Your task to perform on an android device: Search for "razer nari" on bestbuy, select the first entry, and add it to the cart. Image 0: 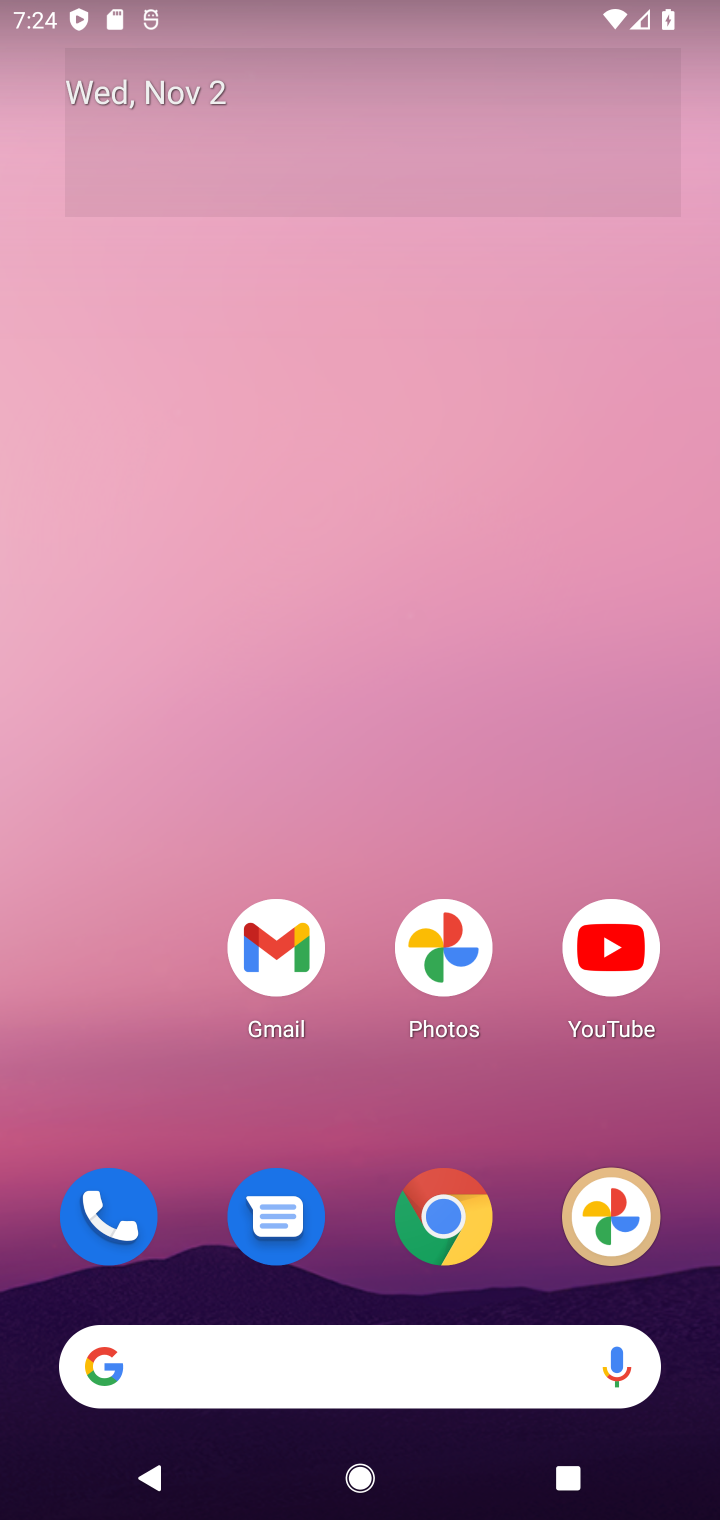
Step 0: click (452, 1213)
Your task to perform on an android device: Search for "razer nari" on bestbuy, select the first entry, and add it to the cart. Image 1: 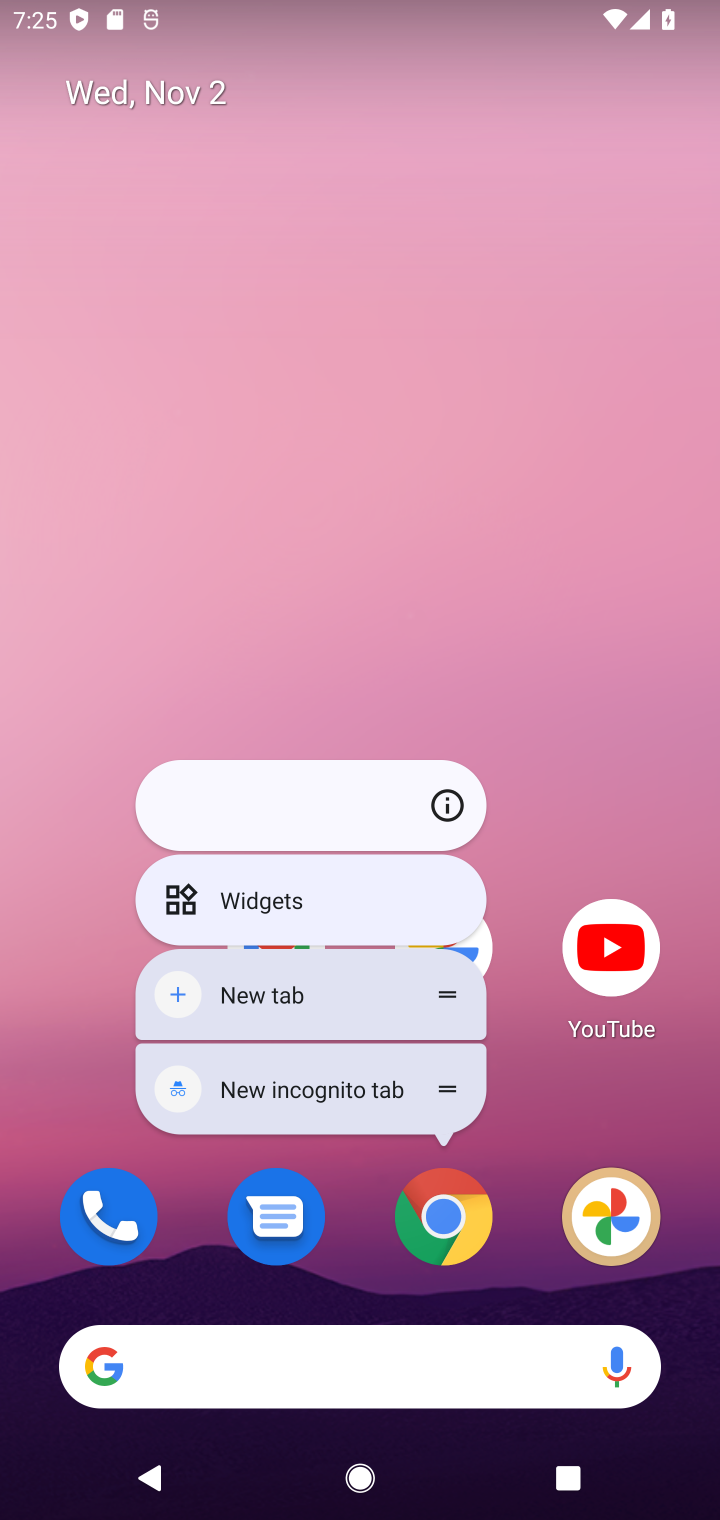
Step 1: click (474, 1269)
Your task to perform on an android device: Search for "razer nari" on bestbuy, select the first entry, and add it to the cart. Image 2: 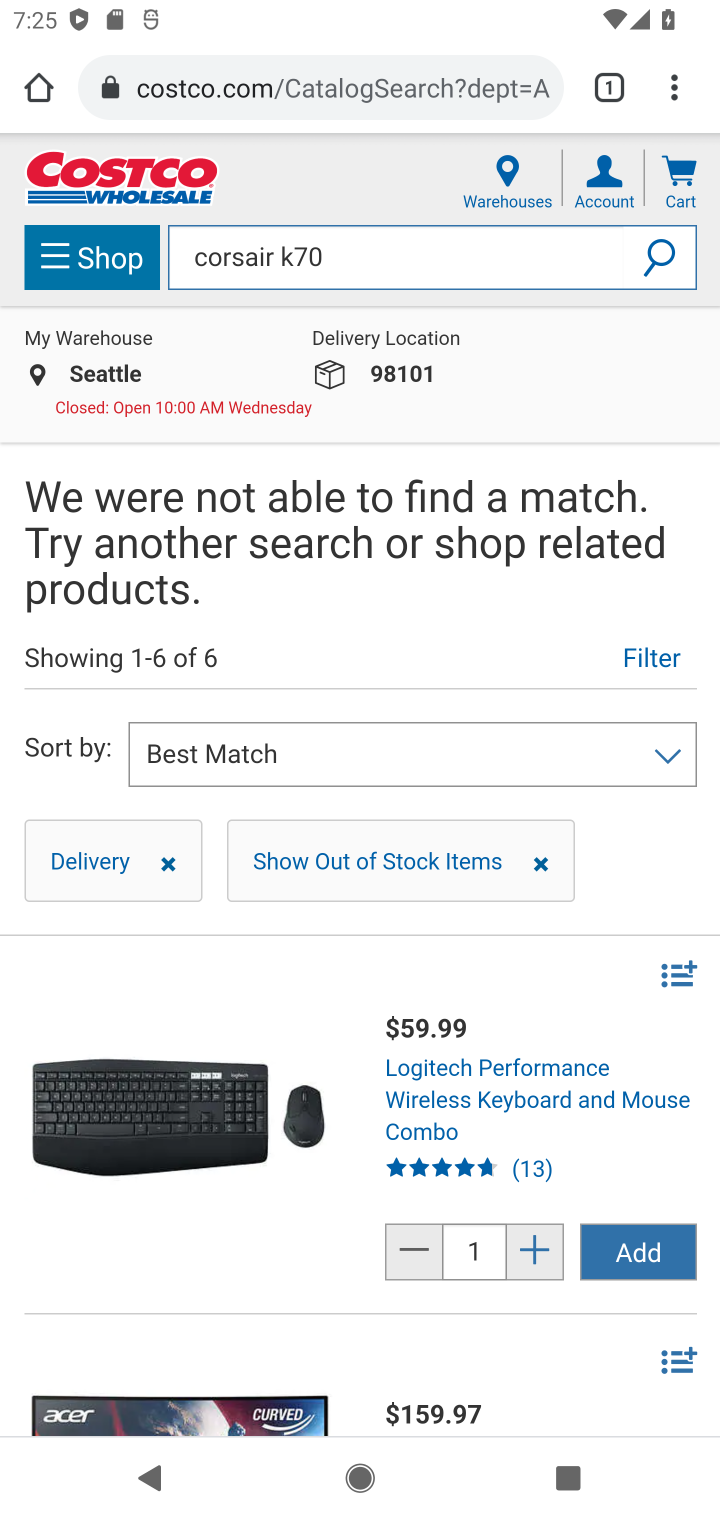
Step 2: click (337, 86)
Your task to perform on an android device: Search for "razer nari" on bestbuy, select the first entry, and add it to the cart. Image 3: 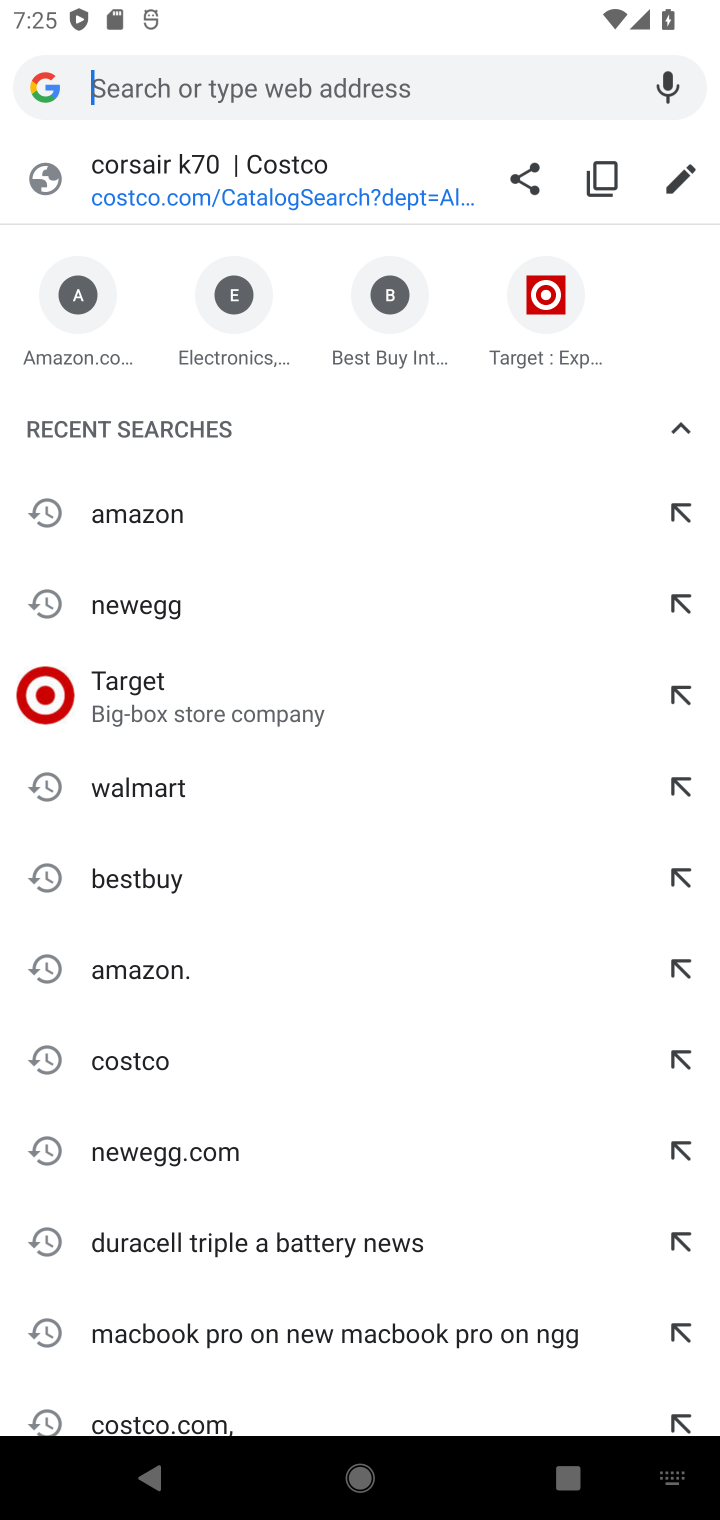
Step 3: type "bestbuy"
Your task to perform on an android device: Search for "razer nari" on bestbuy, select the first entry, and add it to the cart. Image 4: 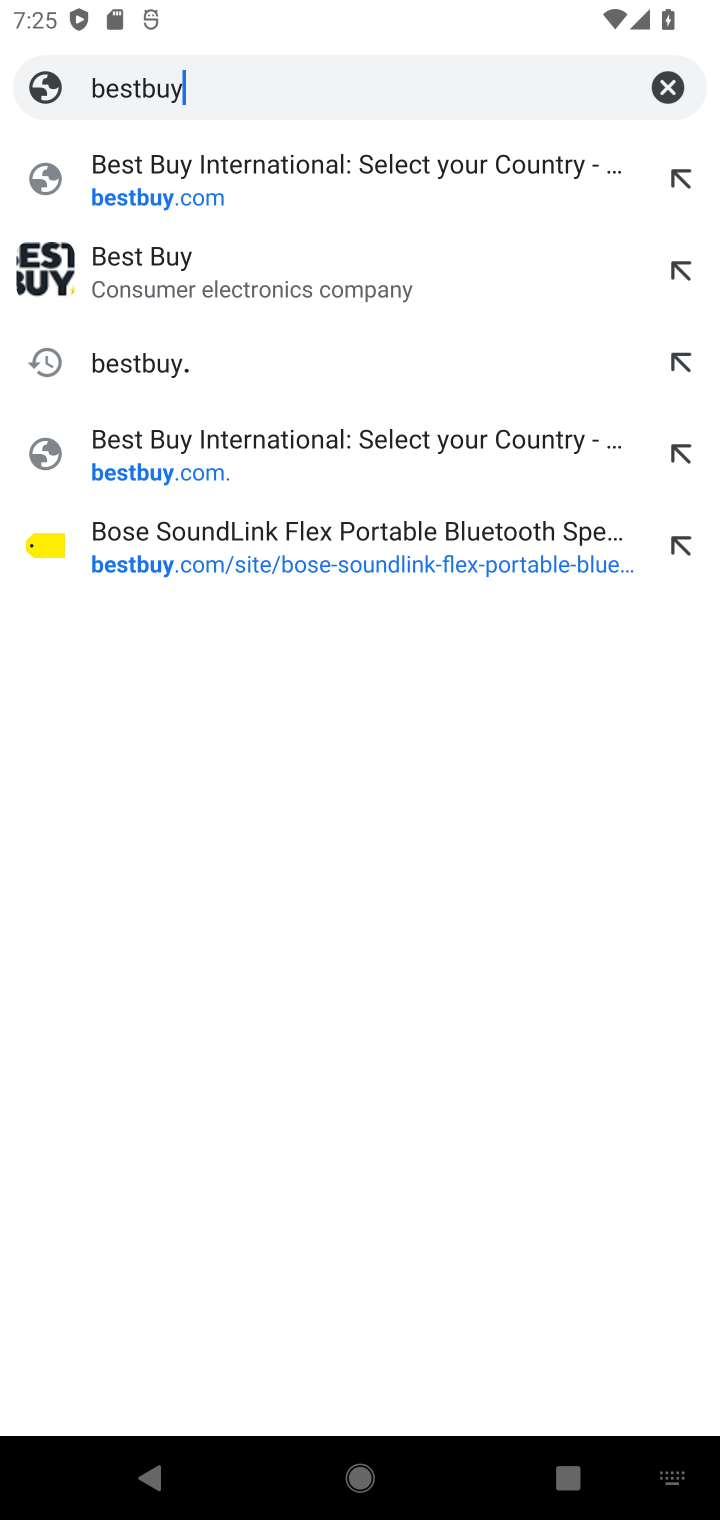
Step 4: click (178, 186)
Your task to perform on an android device: Search for "razer nari" on bestbuy, select the first entry, and add it to the cart. Image 5: 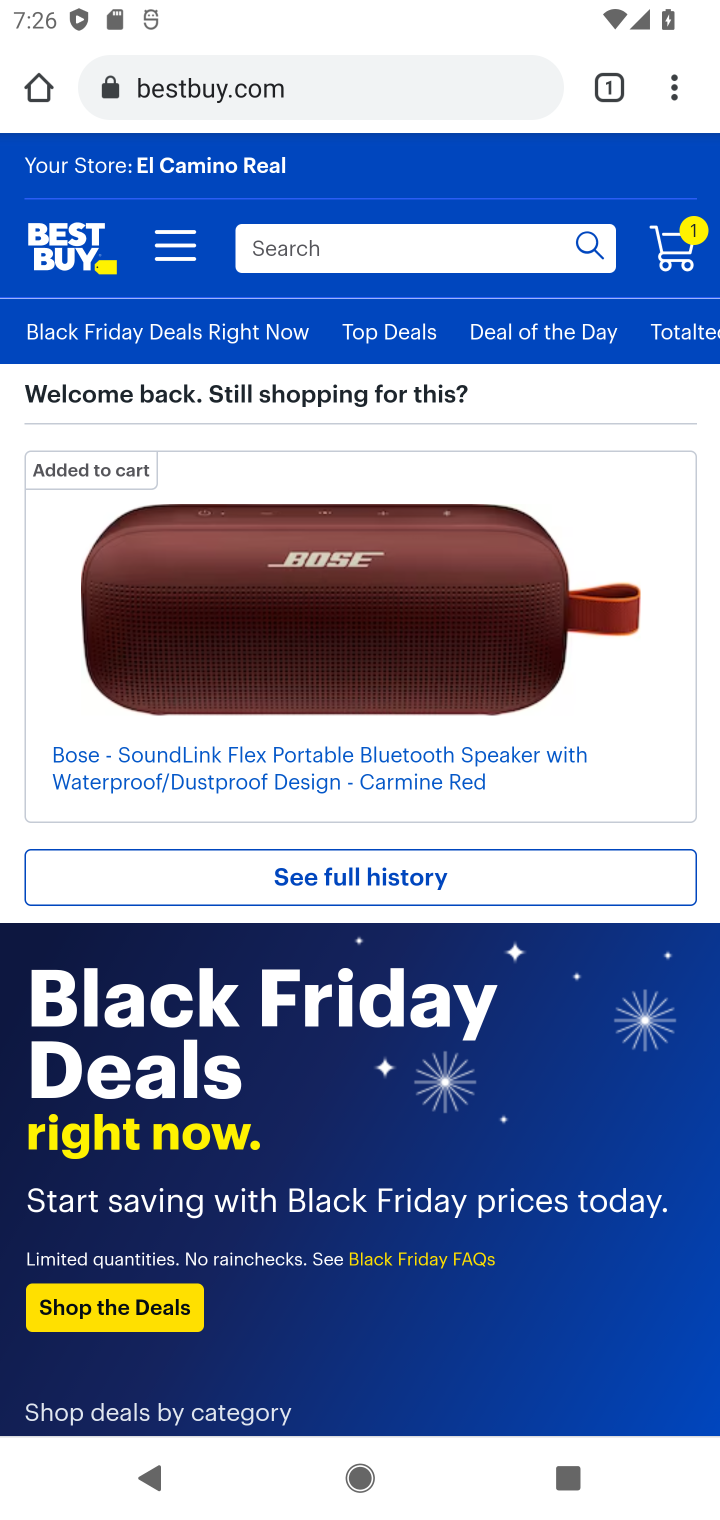
Step 5: click (391, 229)
Your task to perform on an android device: Search for "razer nari" on bestbuy, select the first entry, and add it to the cart. Image 6: 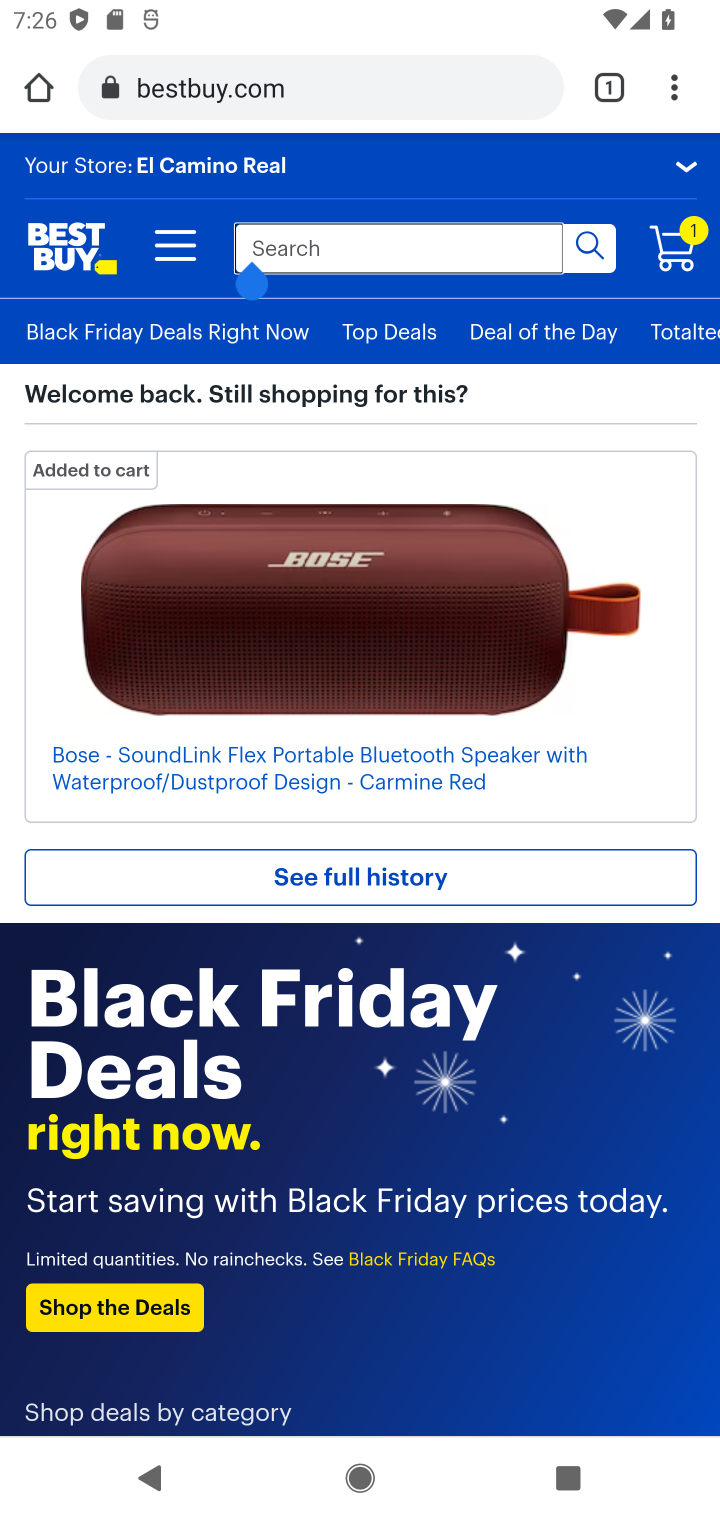
Step 6: type "razer nari"
Your task to perform on an android device: Search for "razer nari" on bestbuy, select the first entry, and add it to the cart. Image 7: 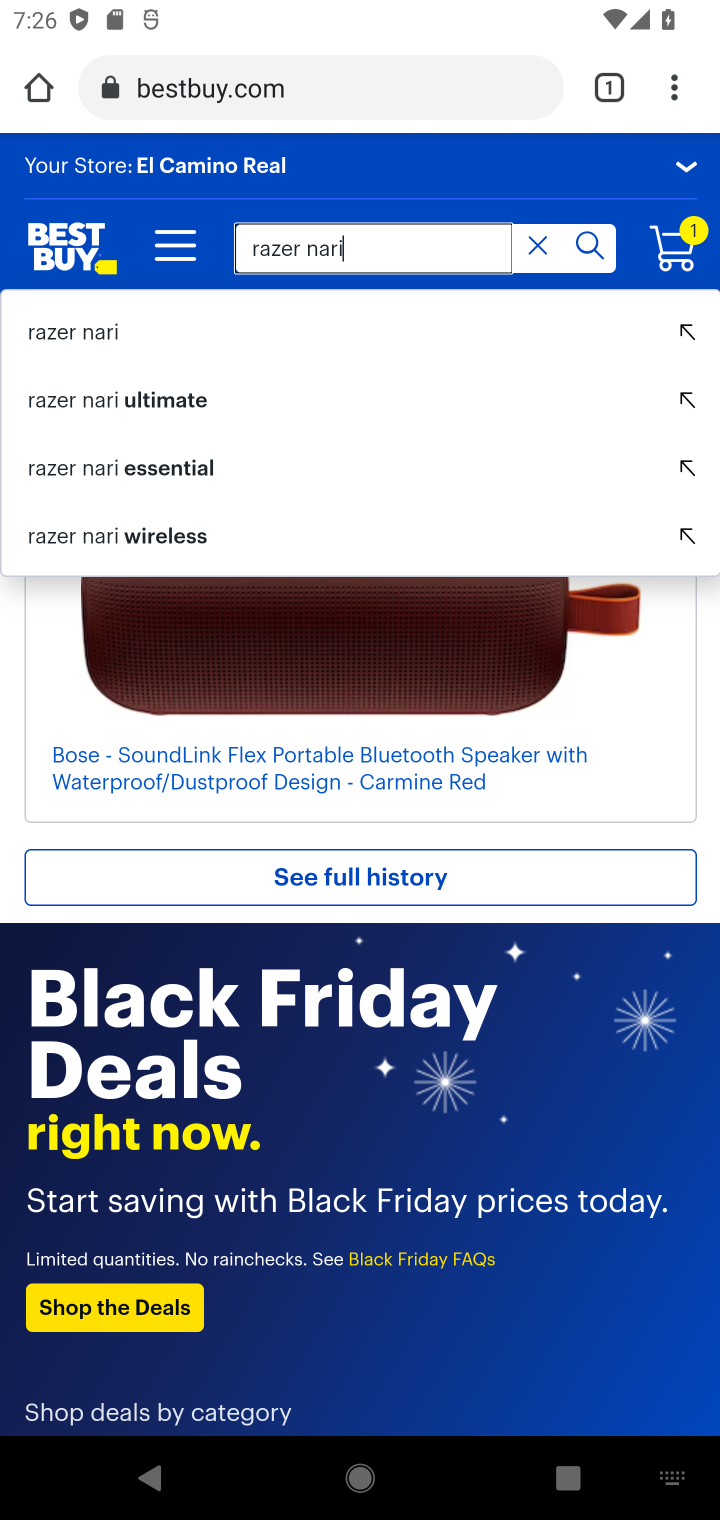
Step 7: click (183, 330)
Your task to perform on an android device: Search for "razer nari" on bestbuy, select the first entry, and add it to the cart. Image 8: 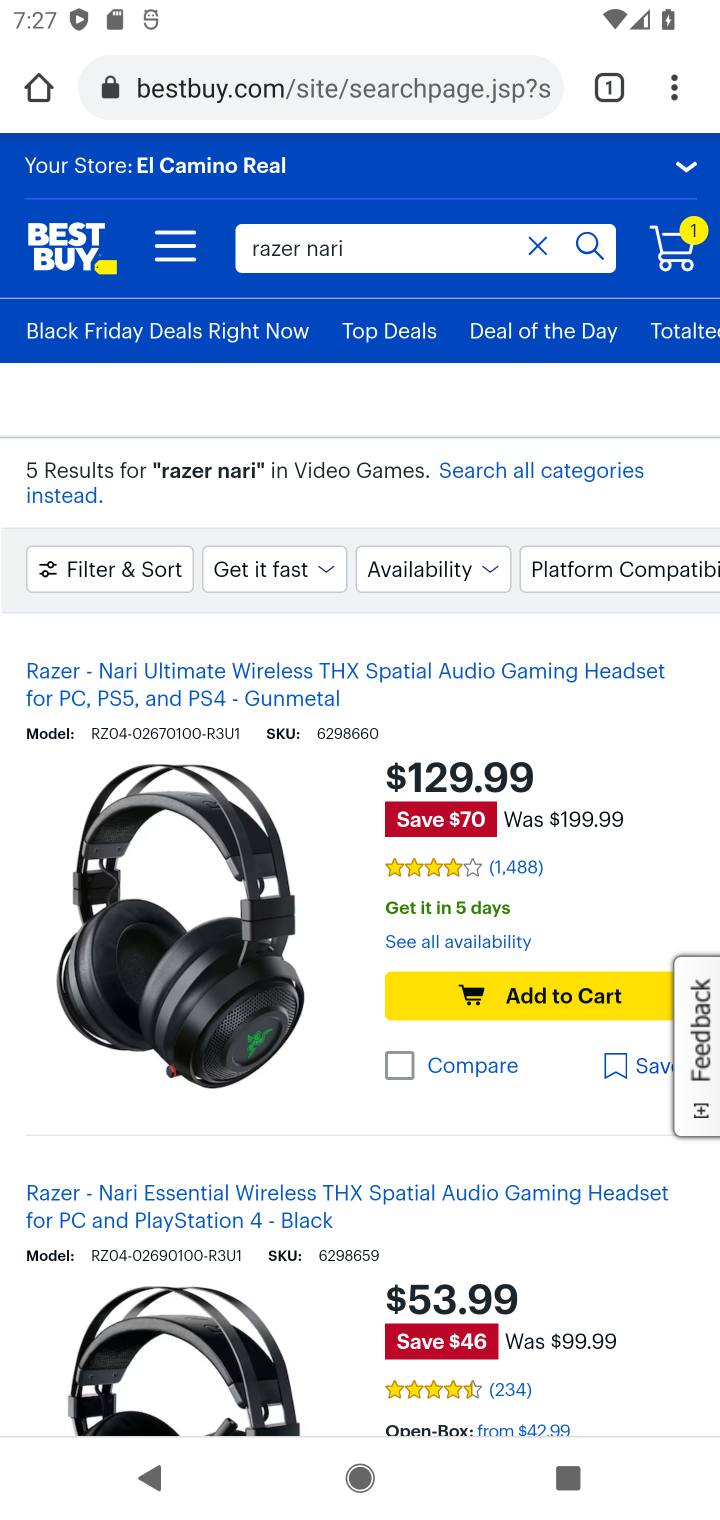
Step 8: click (215, 933)
Your task to perform on an android device: Search for "razer nari" on bestbuy, select the first entry, and add it to the cart. Image 9: 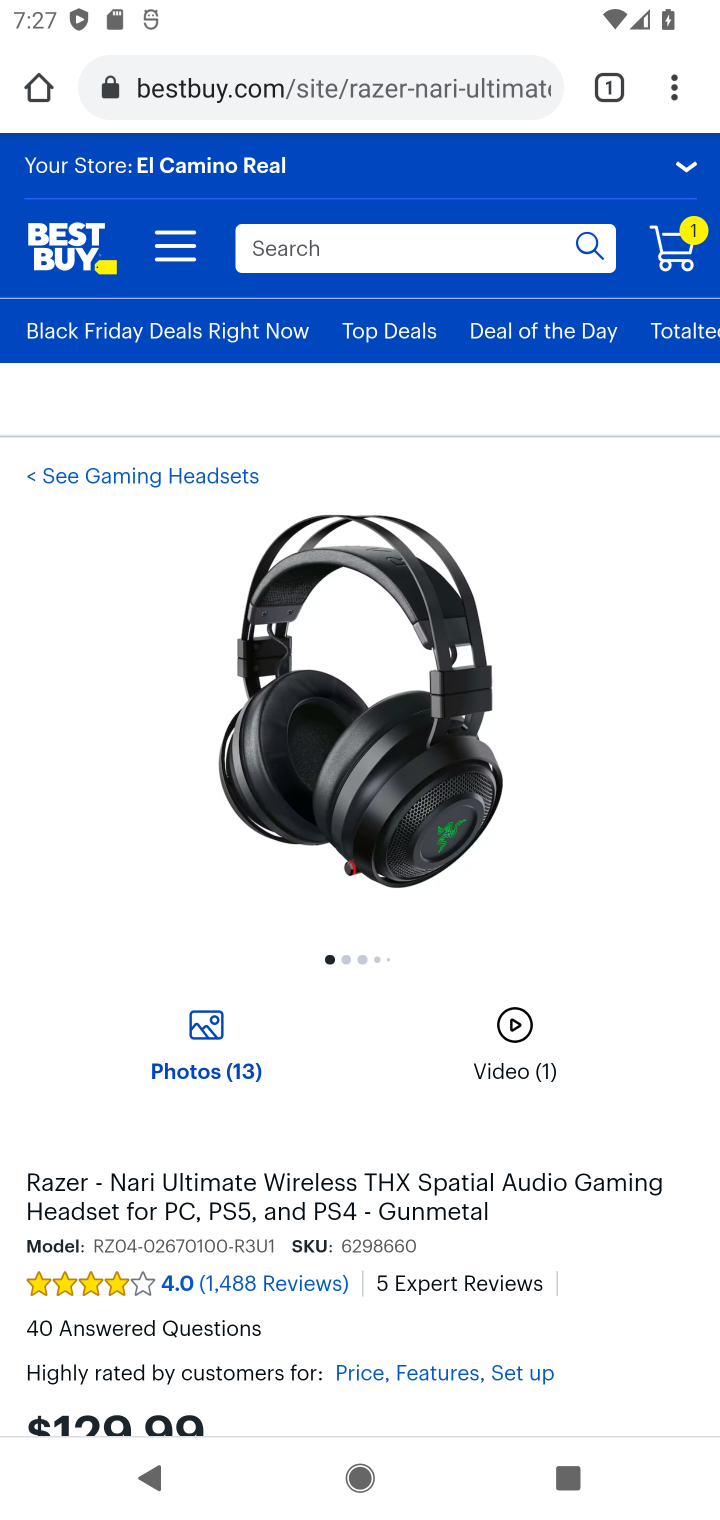
Step 9: drag from (506, 1281) to (448, 466)
Your task to perform on an android device: Search for "razer nari" on bestbuy, select the first entry, and add it to the cart. Image 10: 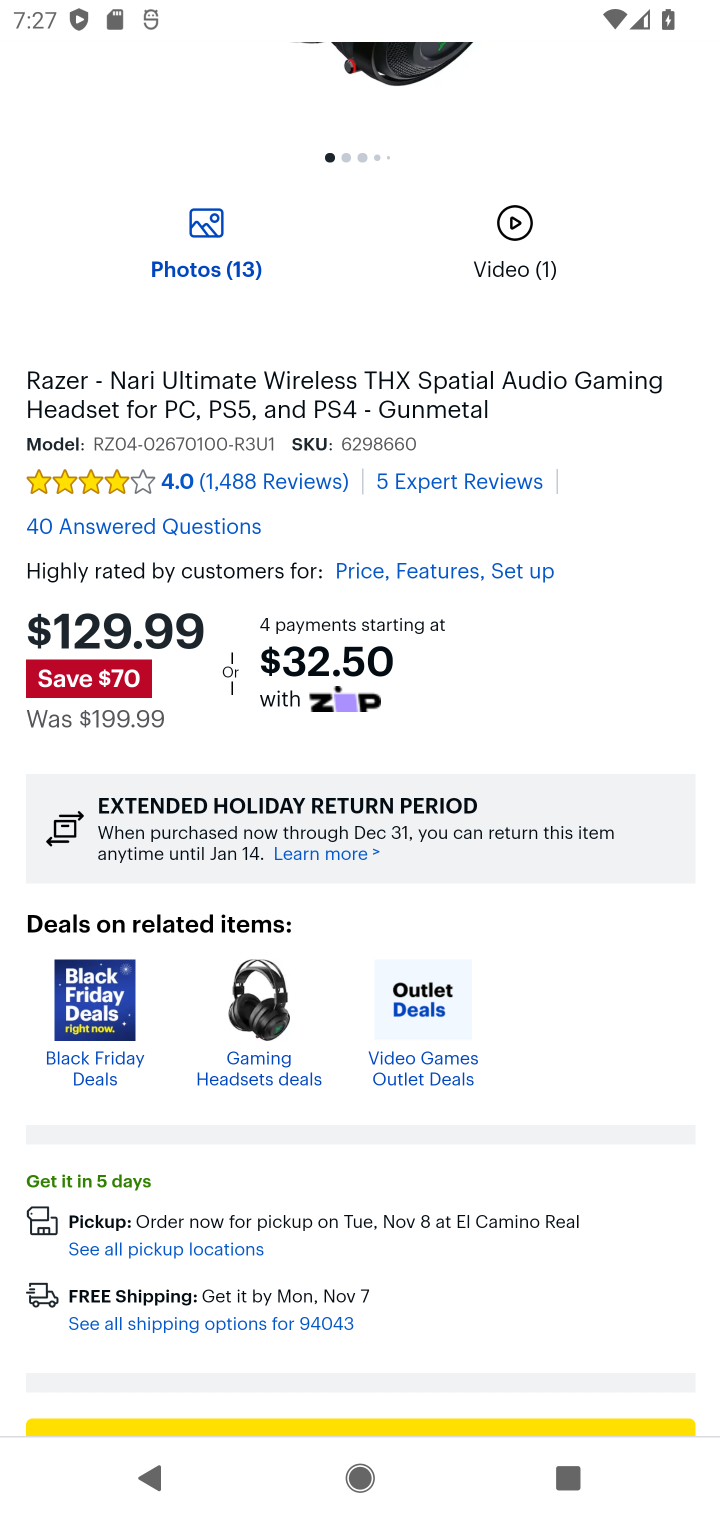
Step 10: drag from (541, 1262) to (521, 232)
Your task to perform on an android device: Search for "razer nari" on bestbuy, select the first entry, and add it to the cart. Image 11: 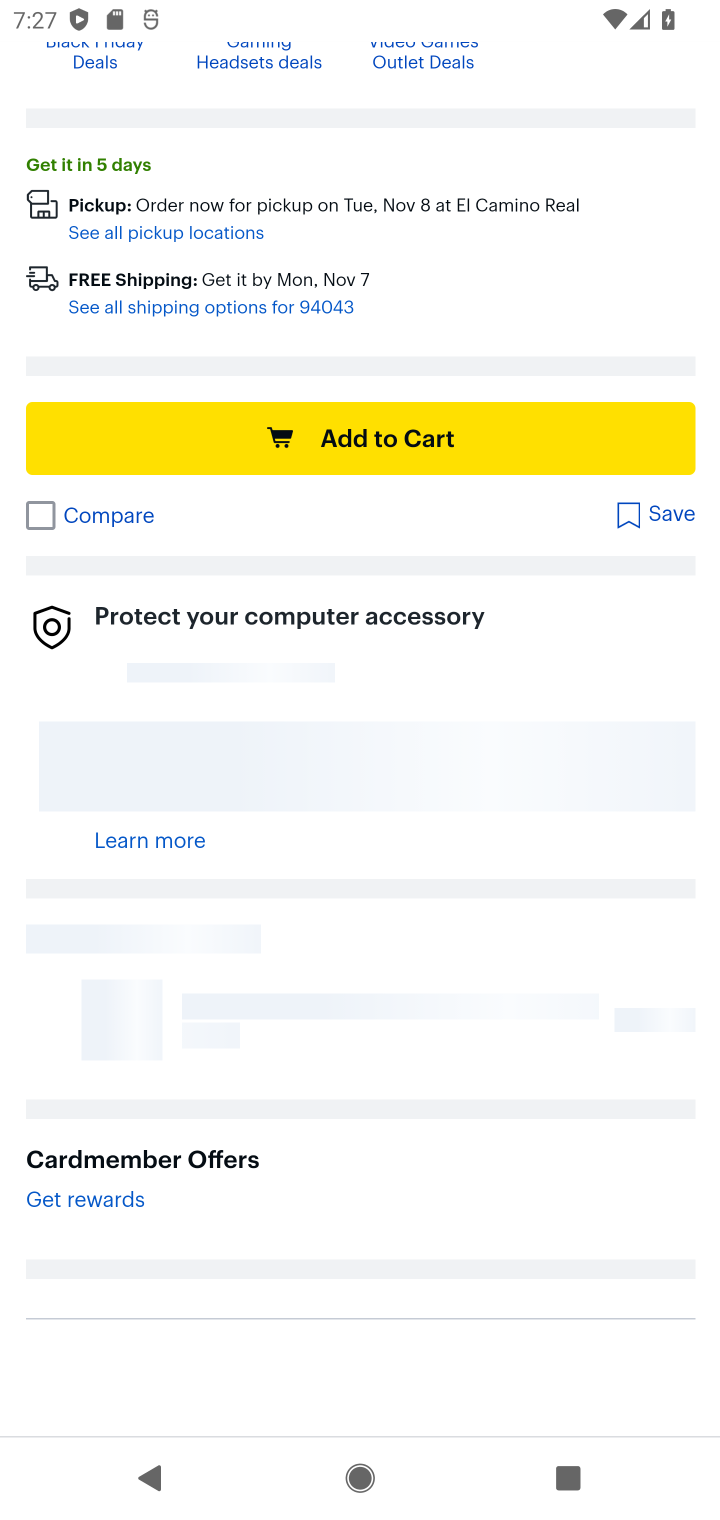
Step 11: click (418, 469)
Your task to perform on an android device: Search for "razer nari" on bestbuy, select the first entry, and add it to the cart. Image 12: 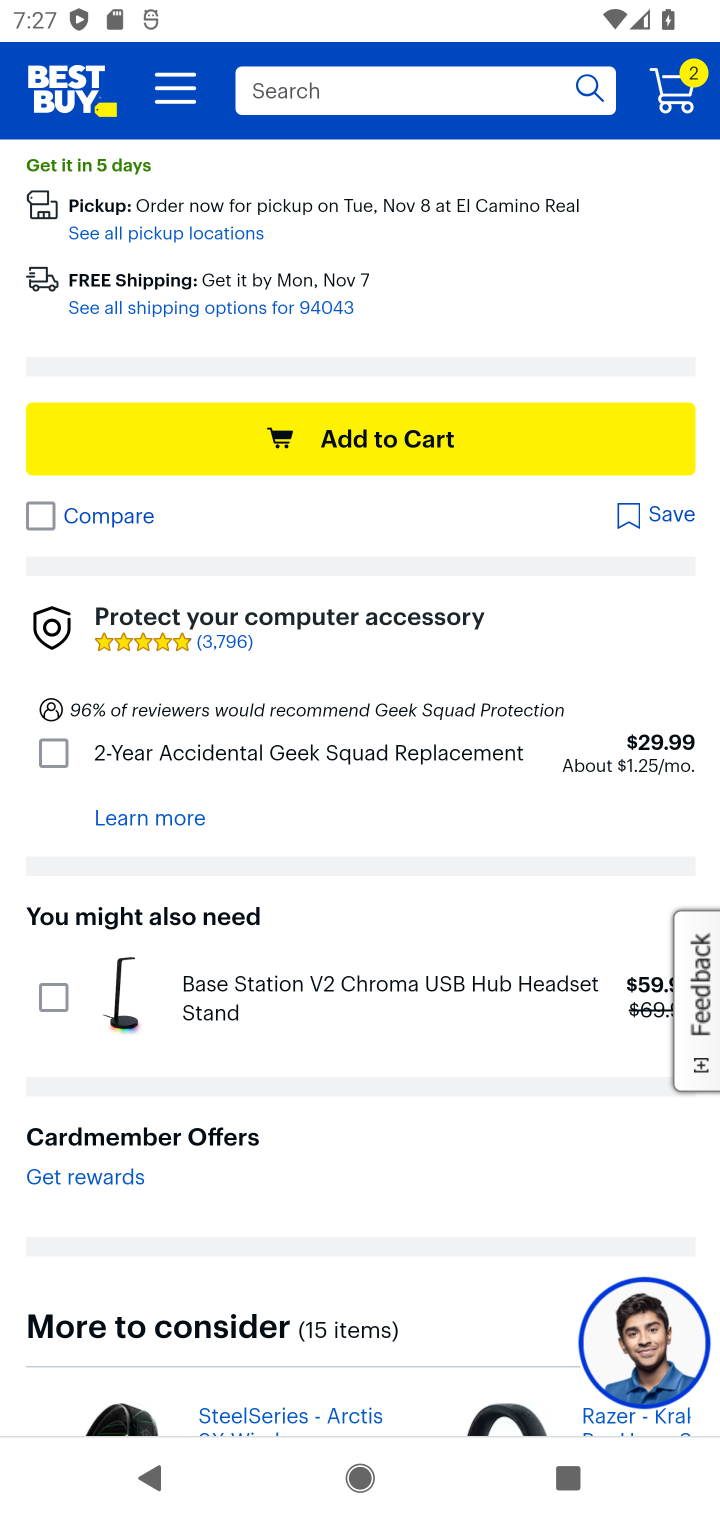
Step 12: click (675, 117)
Your task to perform on an android device: Search for "razer nari" on bestbuy, select the first entry, and add it to the cart. Image 13: 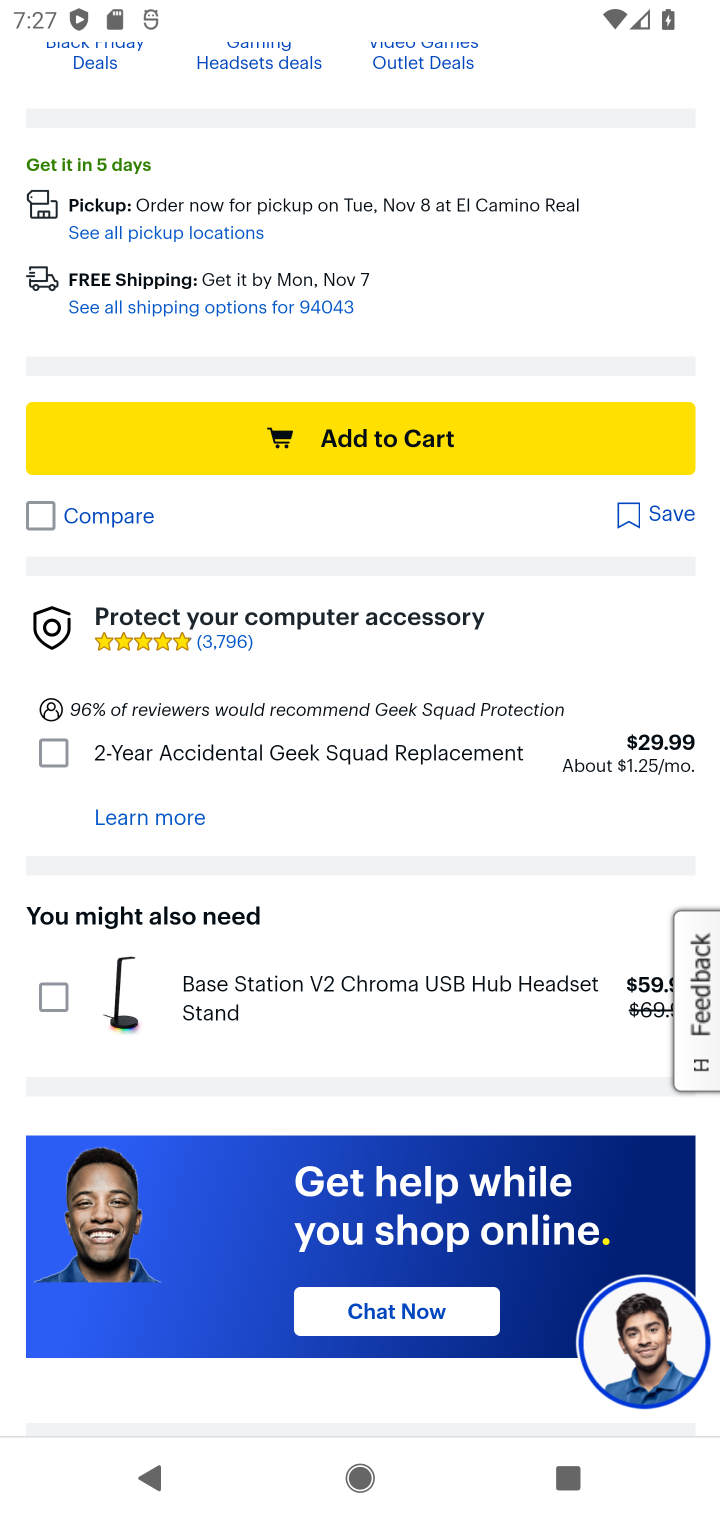
Step 13: task complete